Your task to perform on an android device: Go to CNN.com Image 0: 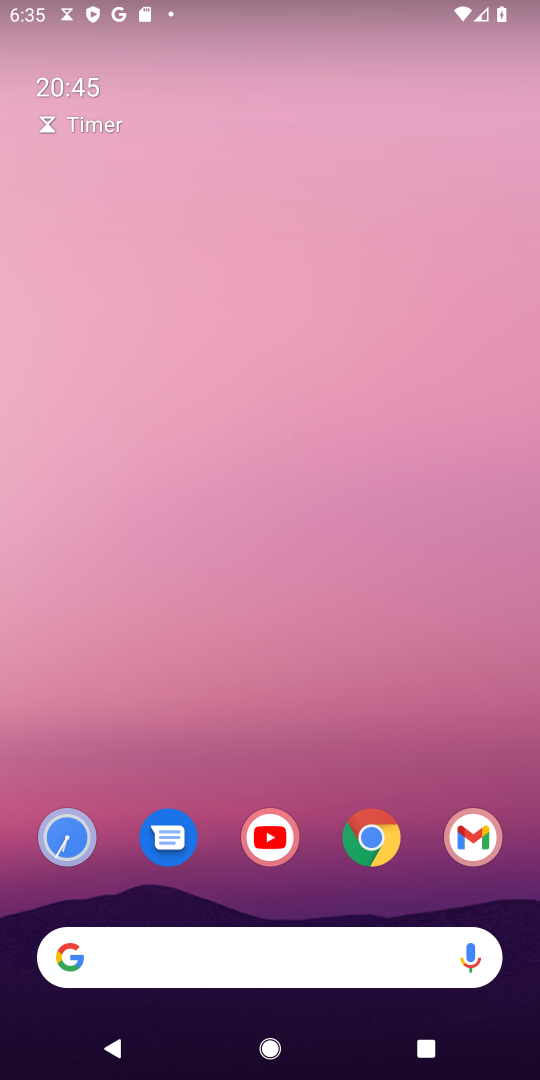
Step 0: press home button
Your task to perform on an android device: Go to CNN.com Image 1: 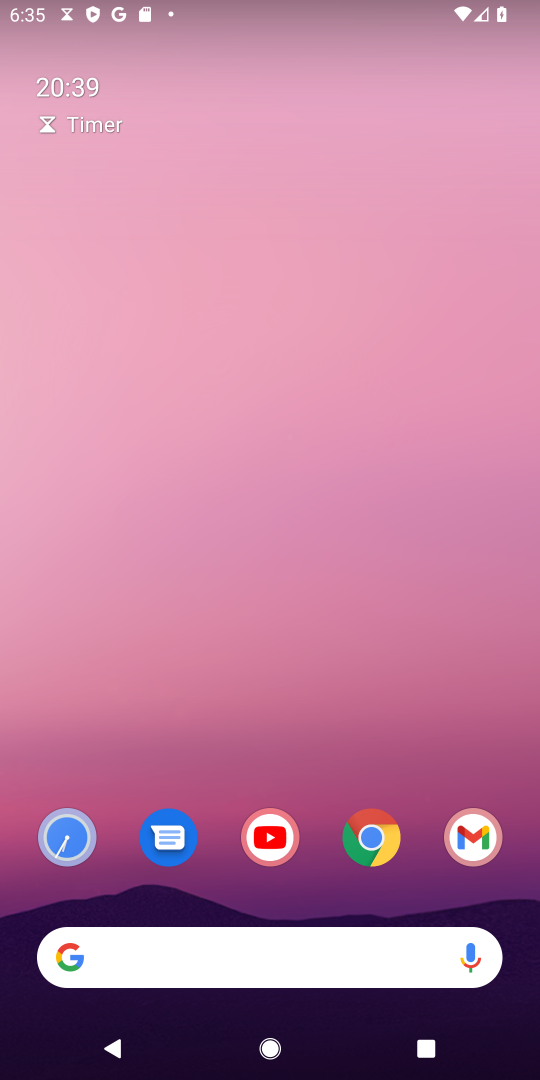
Step 1: click (366, 828)
Your task to perform on an android device: Go to CNN.com Image 2: 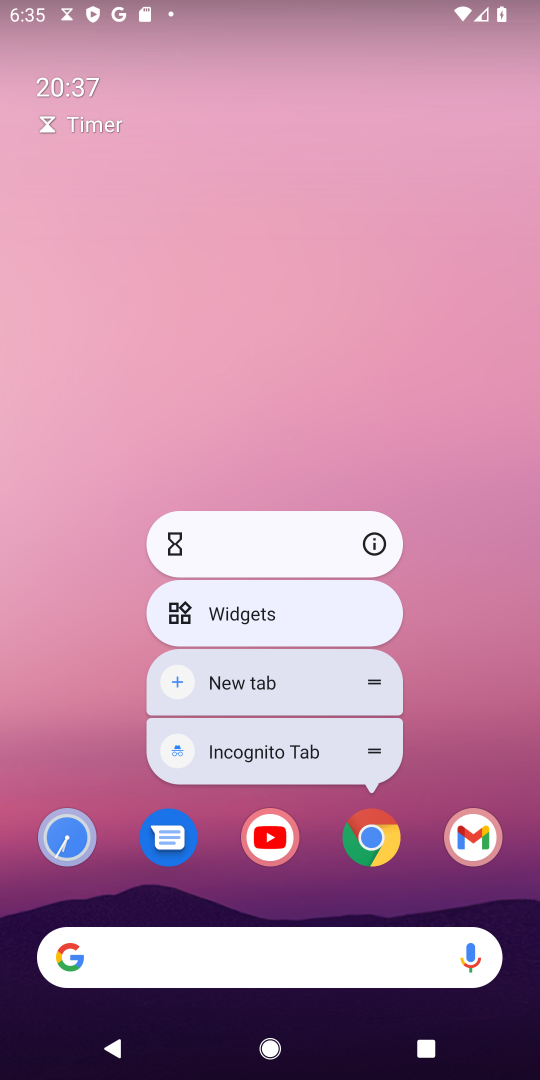
Step 2: click (366, 828)
Your task to perform on an android device: Go to CNN.com Image 3: 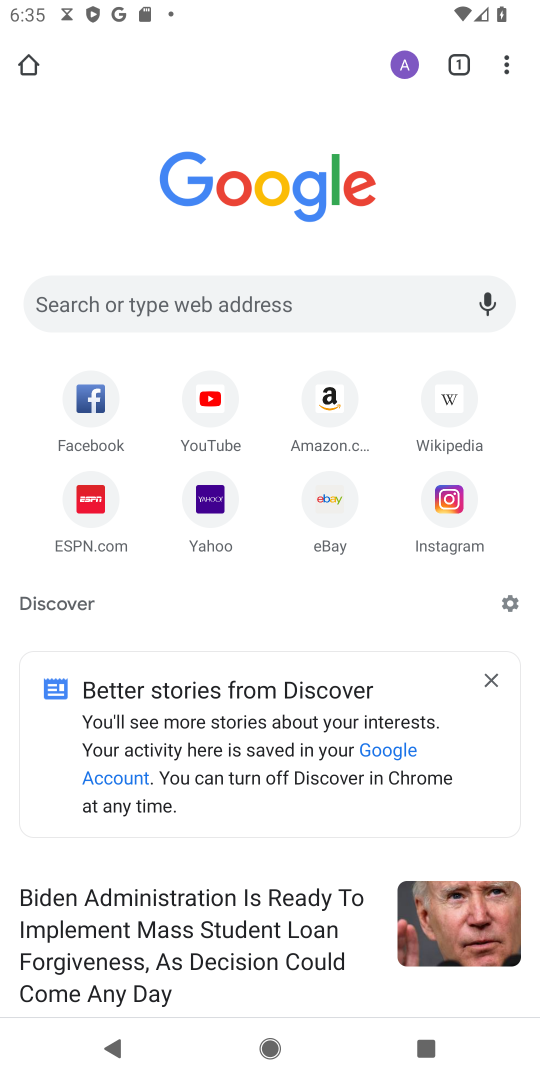
Step 3: click (179, 303)
Your task to perform on an android device: Go to CNN.com Image 4: 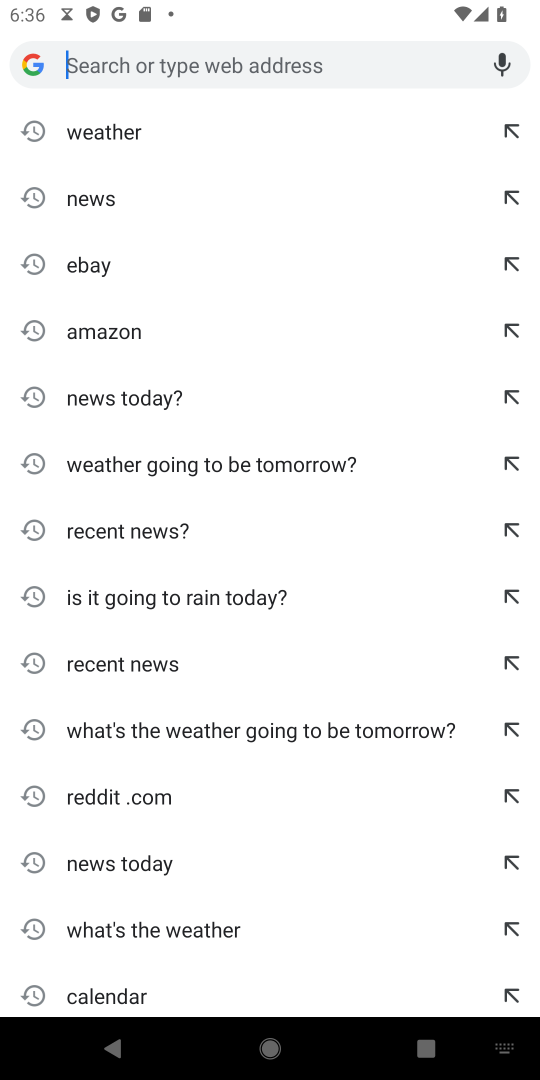
Step 4: type "cnn.com"
Your task to perform on an android device: Go to CNN.com Image 5: 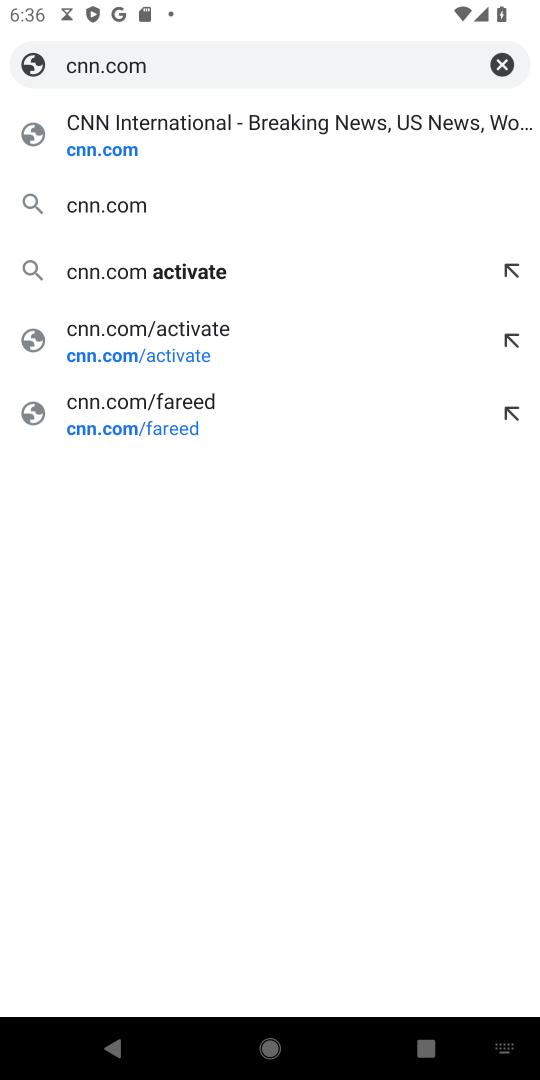
Step 5: click (160, 132)
Your task to perform on an android device: Go to CNN.com Image 6: 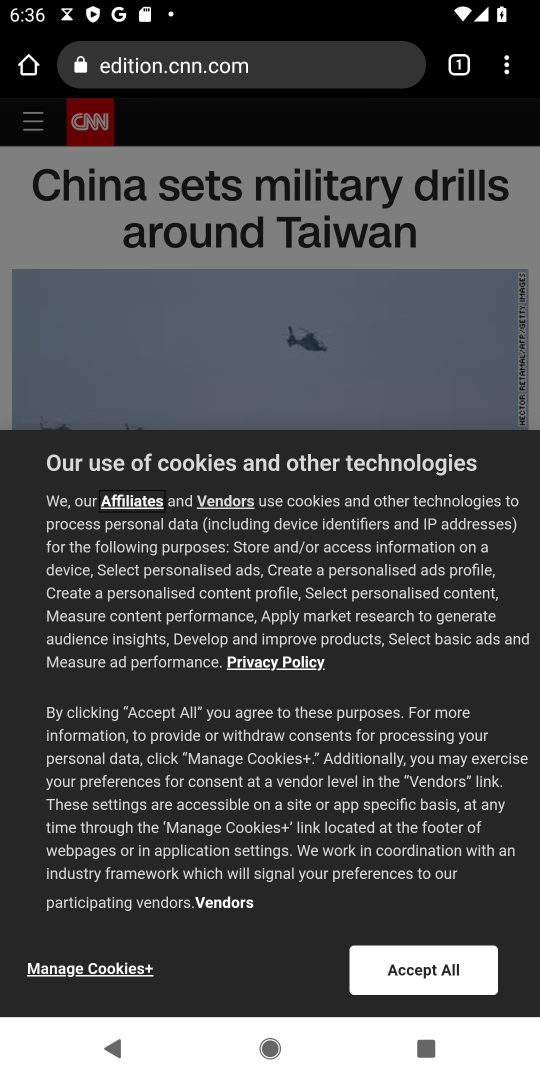
Step 6: click (430, 961)
Your task to perform on an android device: Go to CNN.com Image 7: 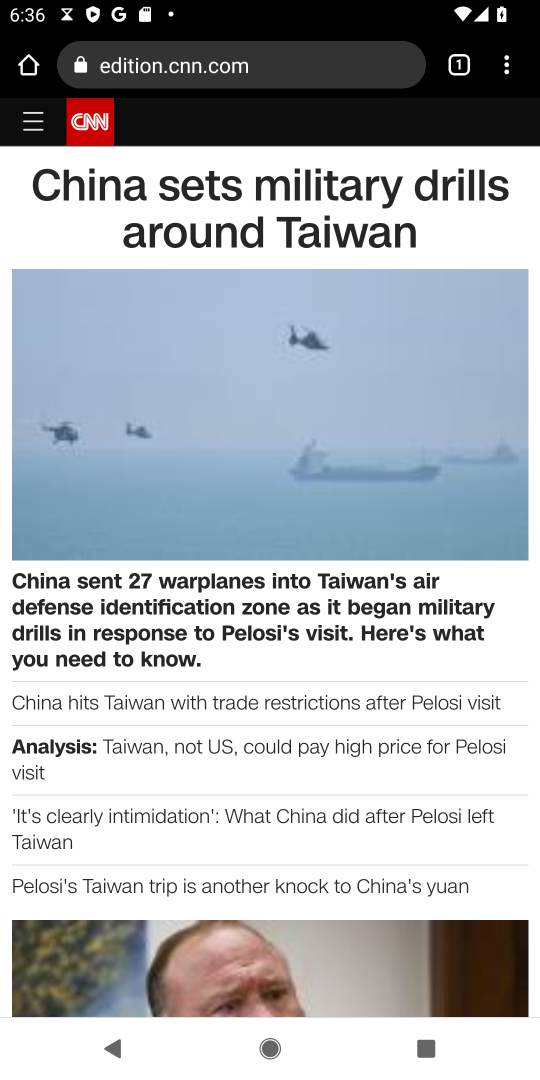
Step 7: task complete